Your task to perform on an android device: turn on notifications settings in the gmail app Image 0: 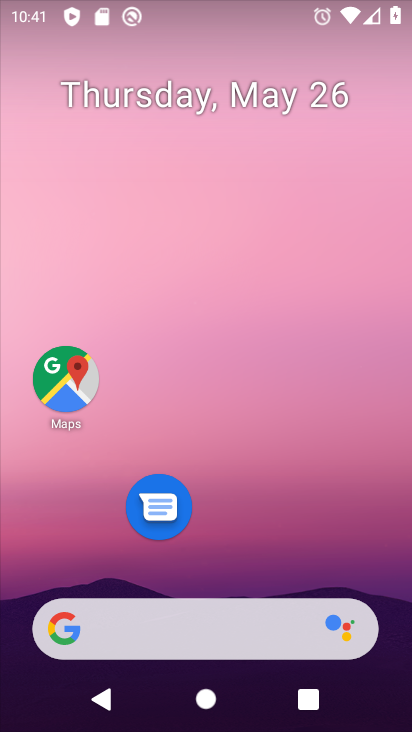
Step 0: drag from (258, 678) to (144, 89)
Your task to perform on an android device: turn on notifications settings in the gmail app Image 1: 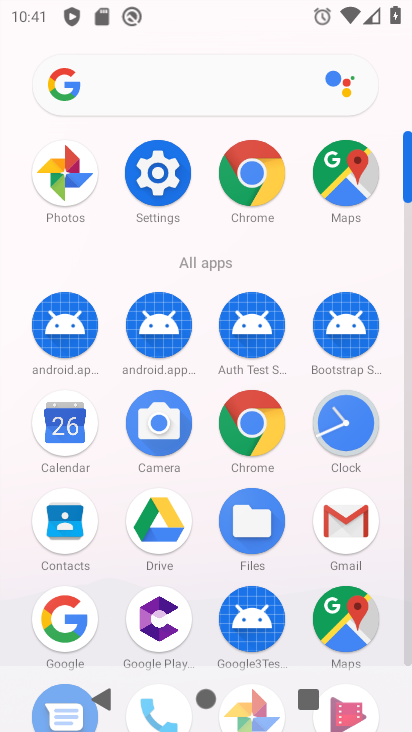
Step 1: click (342, 523)
Your task to perform on an android device: turn on notifications settings in the gmail app Image 2: 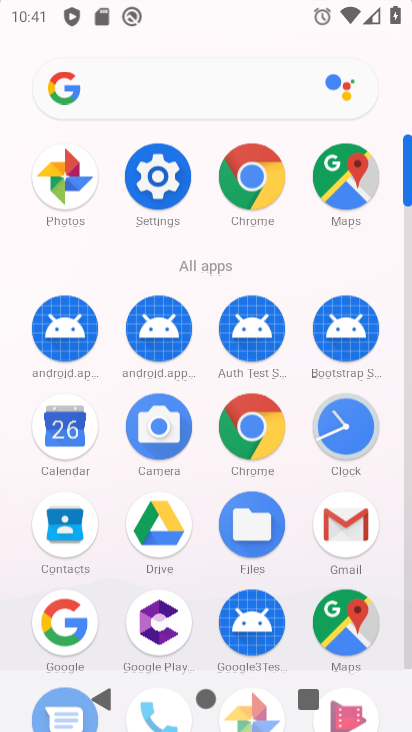
Step 2: click (347, 538)
Your task to perform on an android device: turn on notifications settings in the gmail app Image 3: 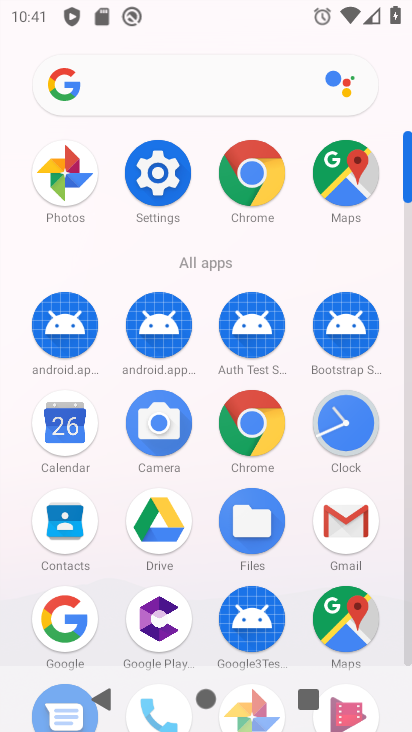
Step 3: click (348, 539)
Your task to perform on an android device: turn on notifications settings in the gmail app Image 4: 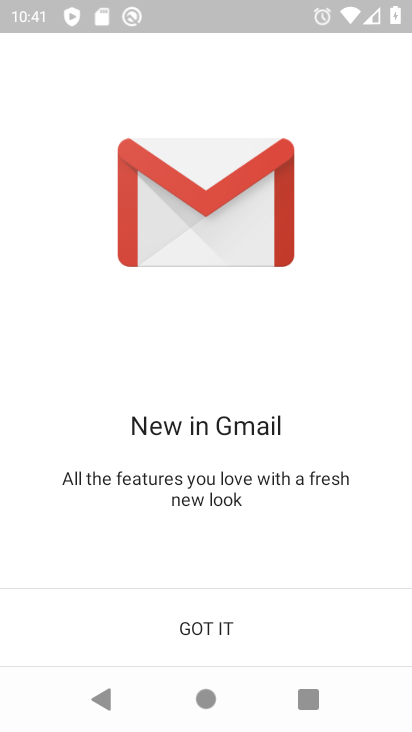
Step 4: click (231, 622)
Your task to perform on an android device: turn on notifications settings in the gmail app Image 5: 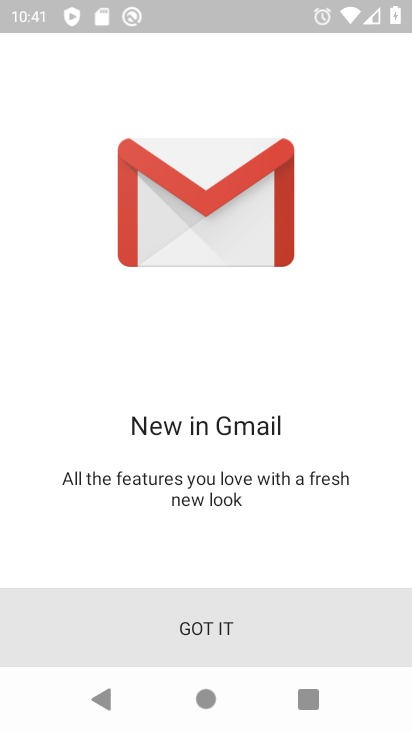
Step 5: click (238, 622)
Your task to perform on an android device: turn on notifications settings in the gmail app Image 6: 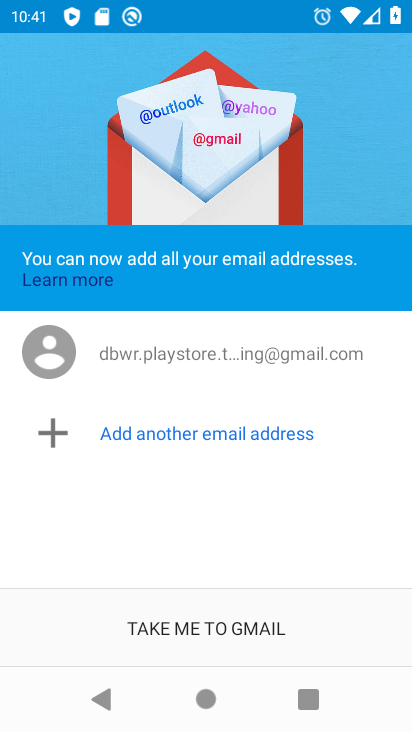
Step 6: click (226, 627)
Your task to perform on an android device: turn on notifications settings in the gmail app Image 7: 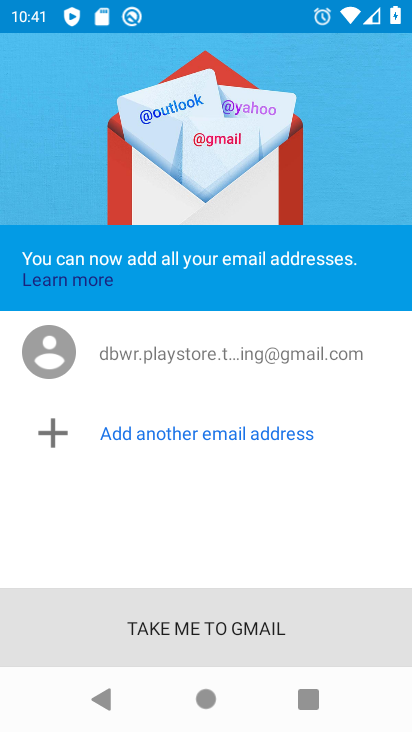
Step 7: click (238, 620)
Your task to perform on an android device: turn on notifications settings in the gmail app Image 8: 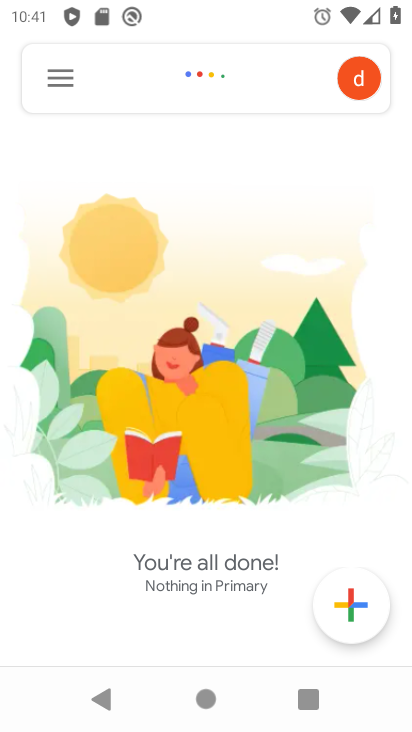
Step 8: click (53, 78)
Your task to perform on an android device: turn on notifications settings in the gmail app Image 9: 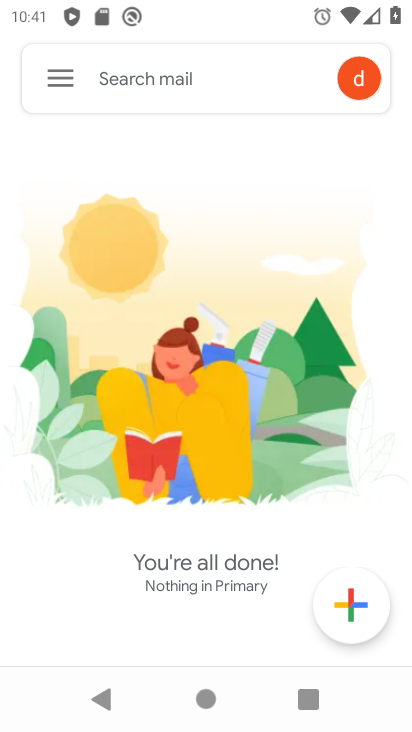
Step 9: click (64, 92)
Your task to perform on an android device: turn on notifications settings in the gmail app Image 10: 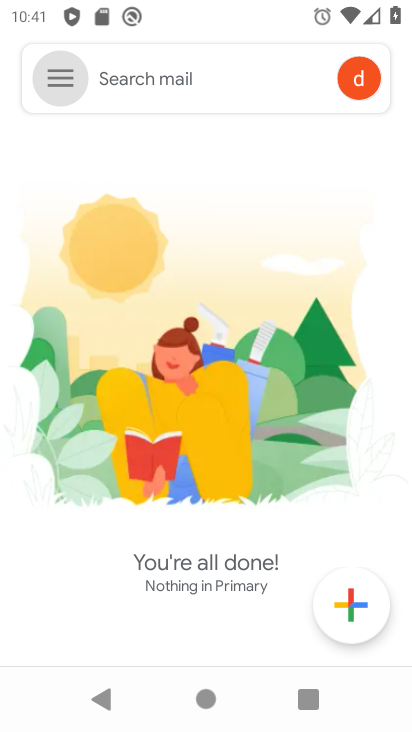
Step 10: click (63, 82)
Your task to perform on an android device: turn on notifications settings in the gmail app Image 11: 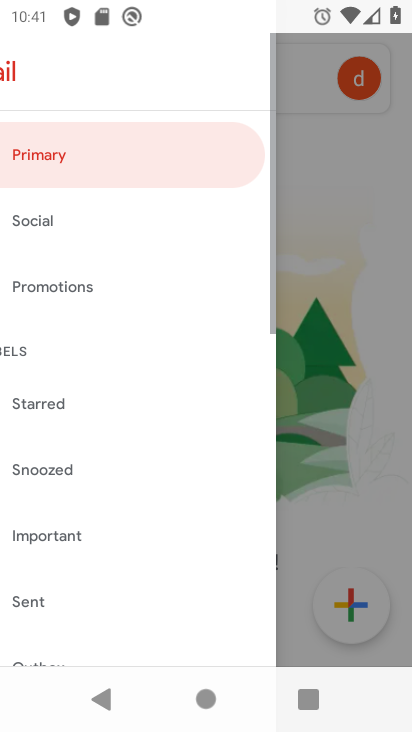
Step 11: click (63, 82)
Your task to perform on an android device: turn on notifications settings in the gmail app Image 12: 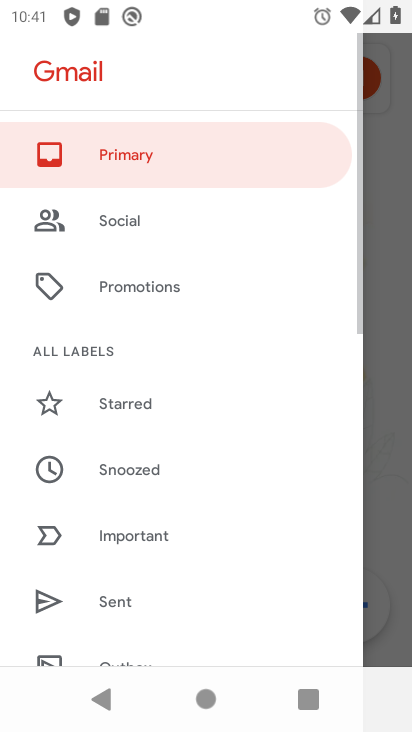
Step 12: drag from (138, 564) to (138, 241)
Your task to perform on an android device: turn on notifications settings in the gmail app Image 13: 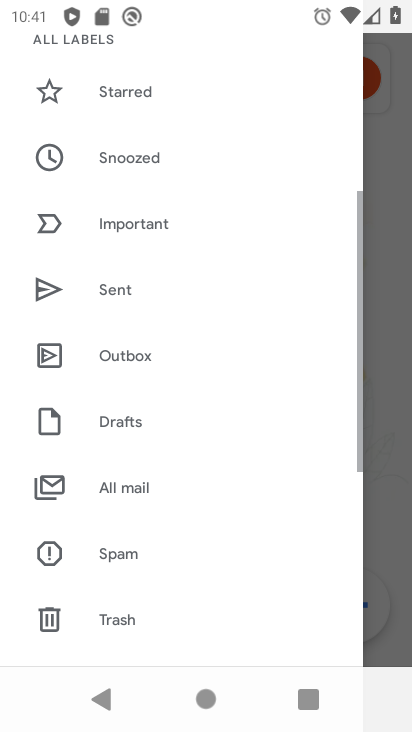
Step 13: drag from (160, 535) to (122, 96)
Your task to perform on an android device: turn on notifications settings in the gmail app Image 14: 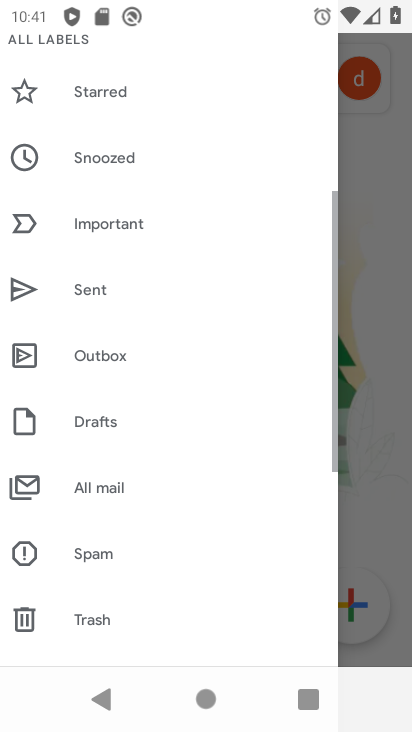
Step 14: drag from (120, 532) to (129, 127)
Your task to perform on an android device: turn on notifications settings in the gmail app Image 15: 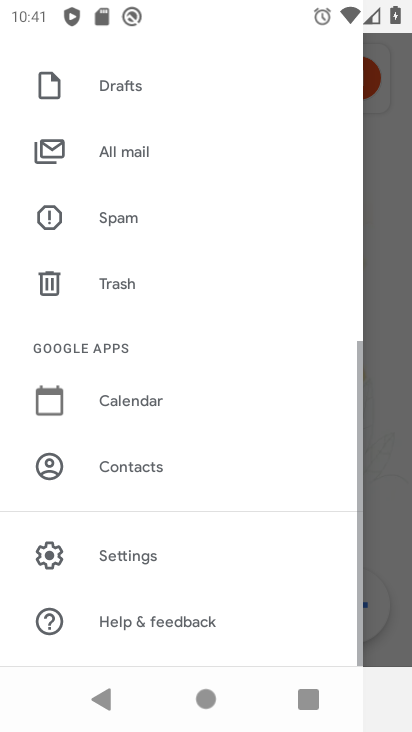
Step 15: drag from (137, 570) to (155, 173)
Your task to perform on an android device: turn on notifications settings in the gmail app Image 16: 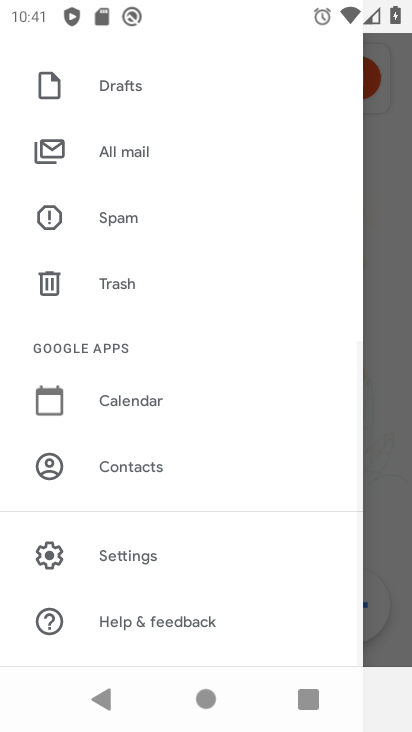
Step 16: click (125, 546)
Your task to perform on an android device: turn on notifications settings in the gmail app Image 17: 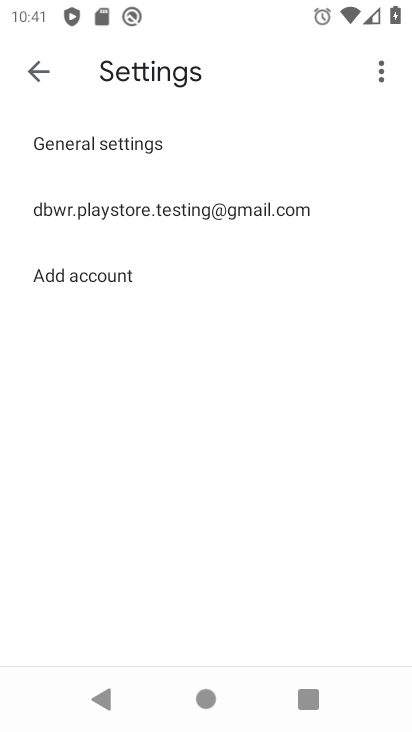
Step 17: click (131, 204)
Your task to perform on an android device: turn on notifications settings in the gmail app Image 18: 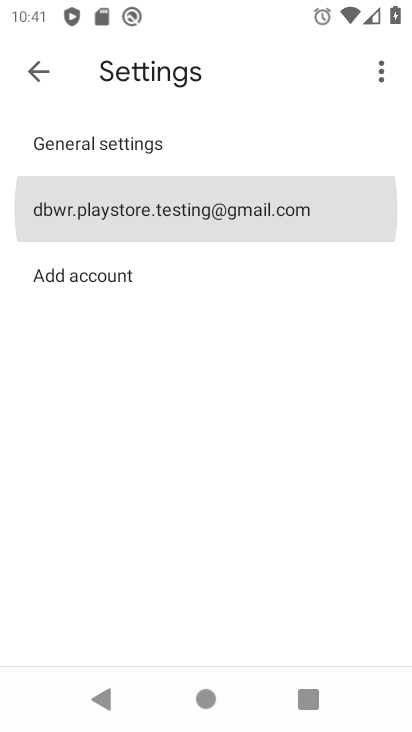
Step 18: click (134, 203)
Your task to perform on an android device: turn on notifications settings in the gmail app Image 19: 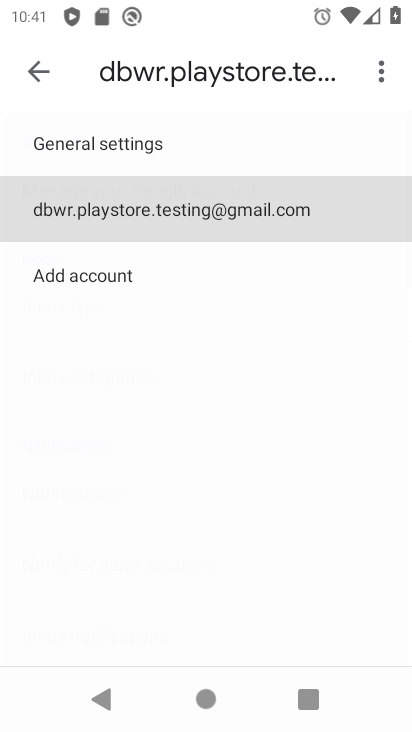
Step 19: click (134, 203)
Your task to perform on an android device: turn on notifications settings in the gmail app Image 20: 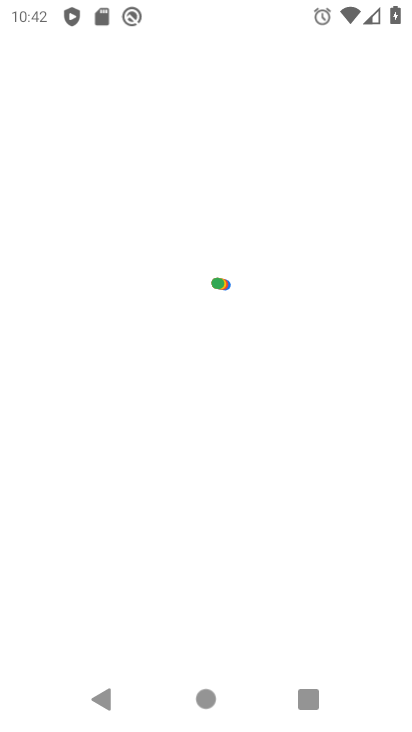
Step 20: press back button
Your task to perform on an android device: turn on notifications settings in the gmail app Image 21: 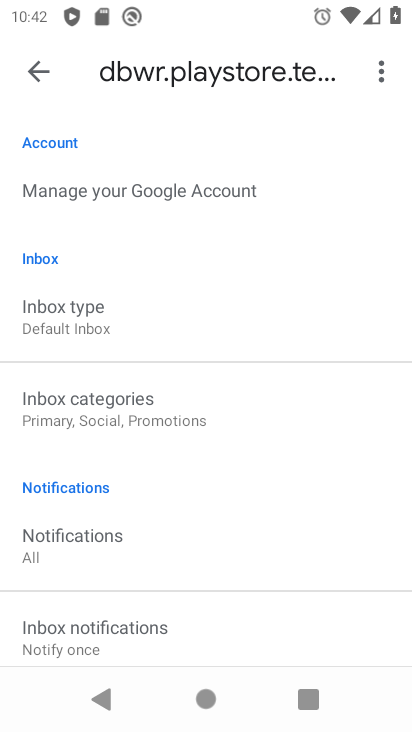
Step 21: click (61, 517)
Your task to perform on an android device: turn on notifications settings in the gmail app Image 22: 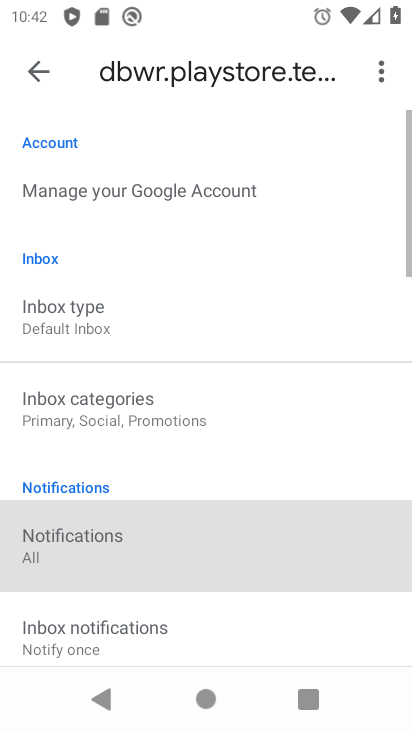
Step 22: click (63, 523)
Your task to perform on an android device: turn on notifications settings in the gmail app Image 23: 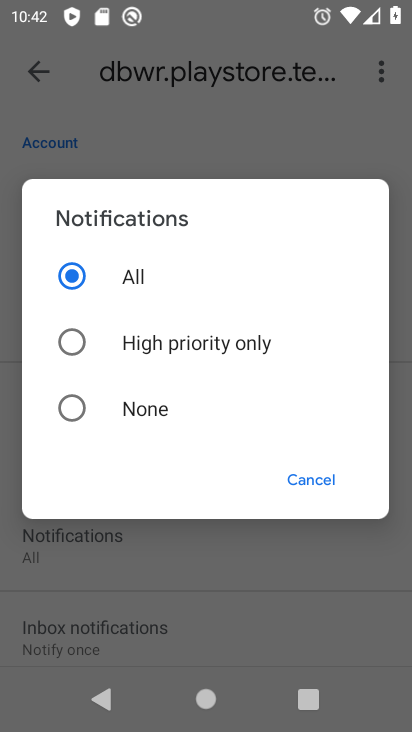
Step 23: click (319, 479)
Your task to perform on an android device: turn on notifications settings in the gmail app Image 24: 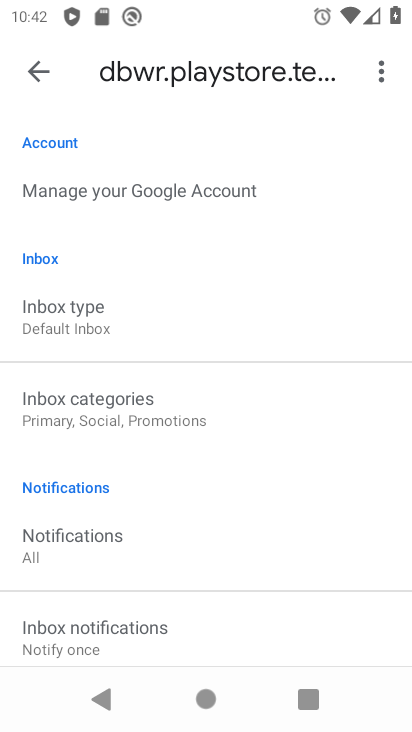
Step 24: task complete